Your task to perform on an android device: allow cookies in the chrome app Image 0: 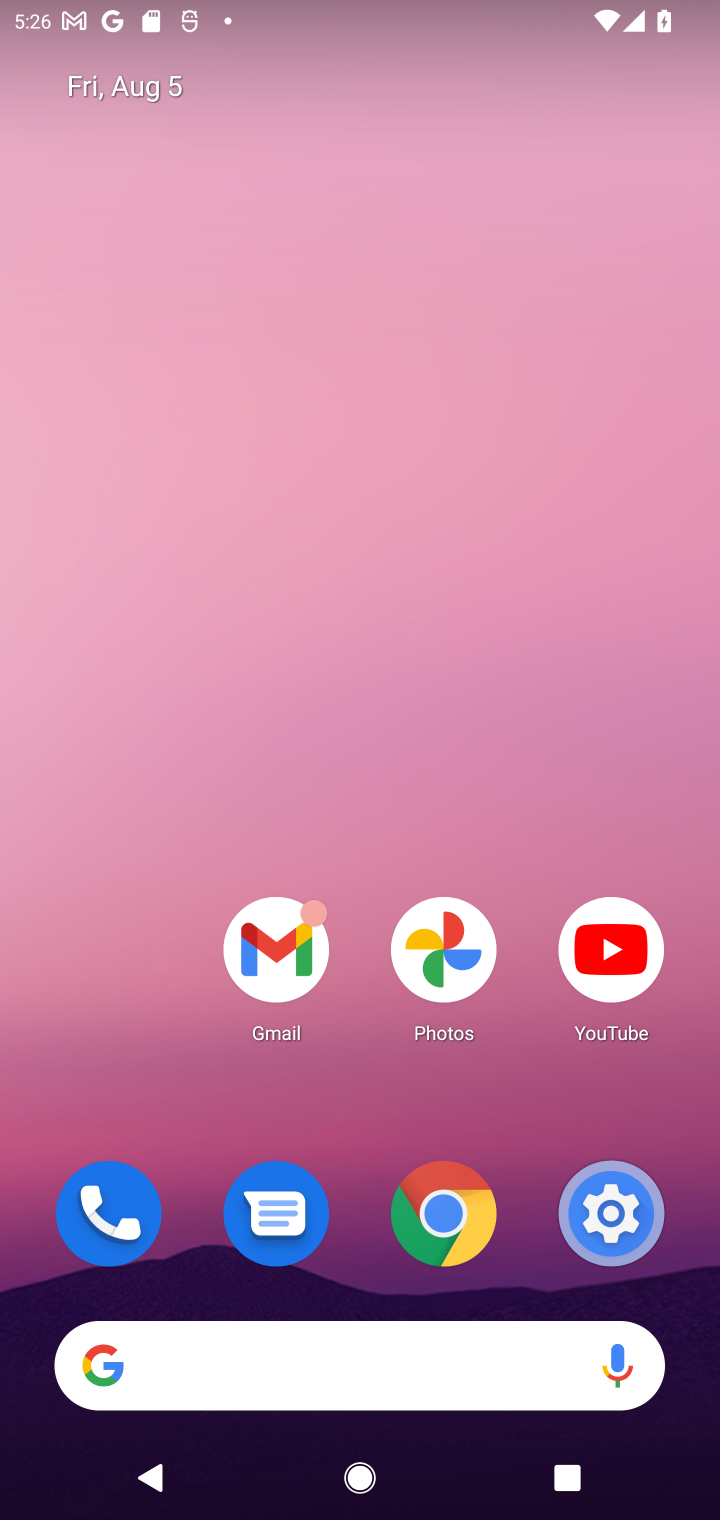
Step 0: click (487, 1258)
Your task to perform on an android device: allow cookies in the chrome app Image 1: 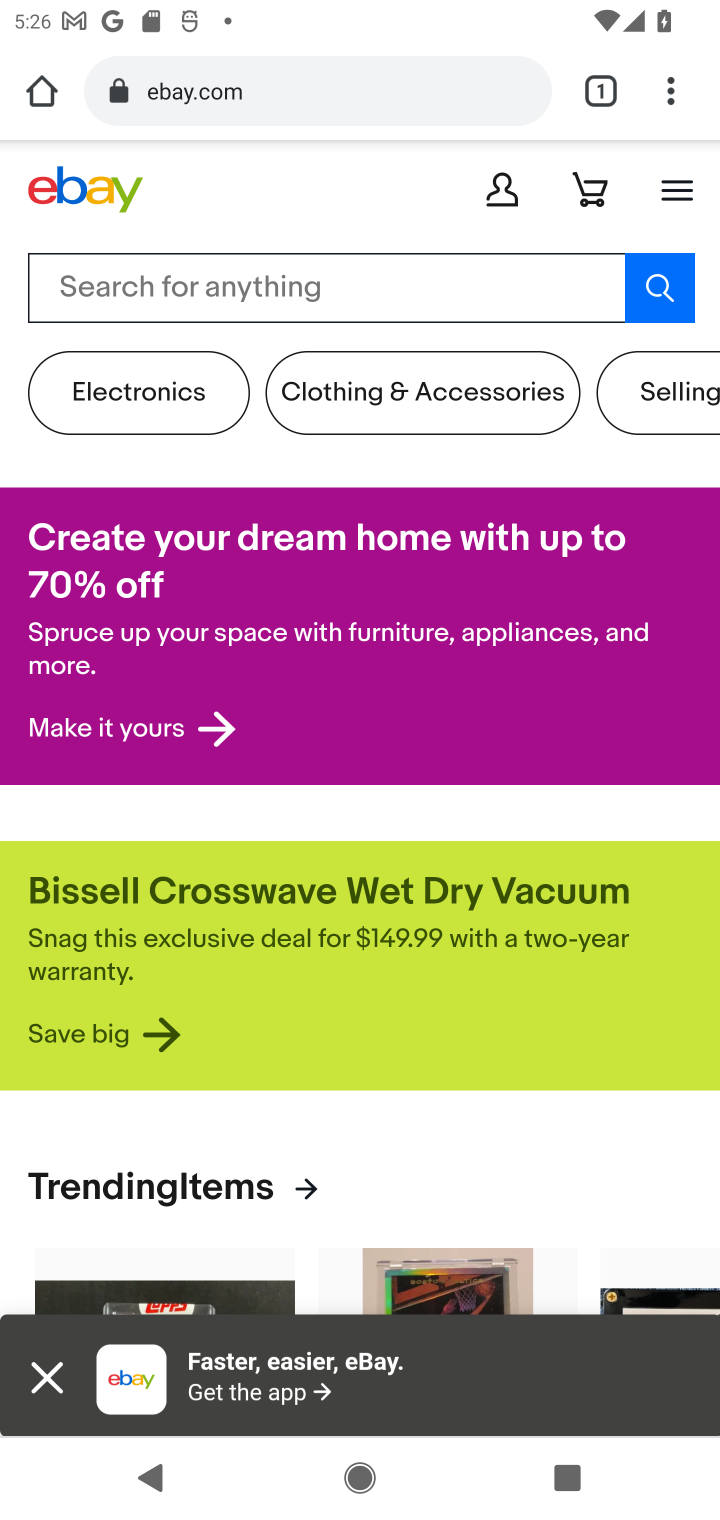
Step 1: click (665, 98)
Your task to perform on an android device: allow cookies in the chrome app Image 2: 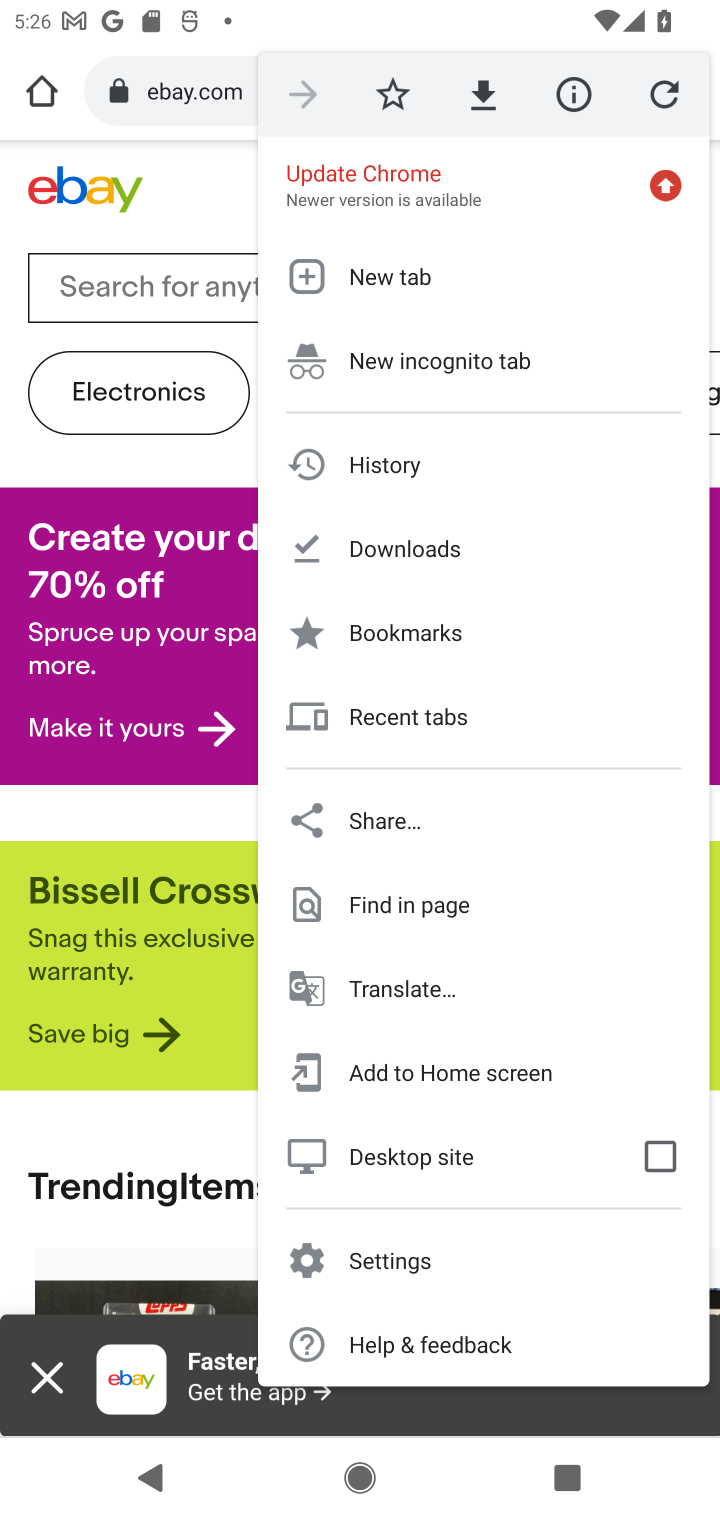
Step 2: click (338, 1225)
Your task to perform on an android device: allow cookies in the chrome app Image 3: 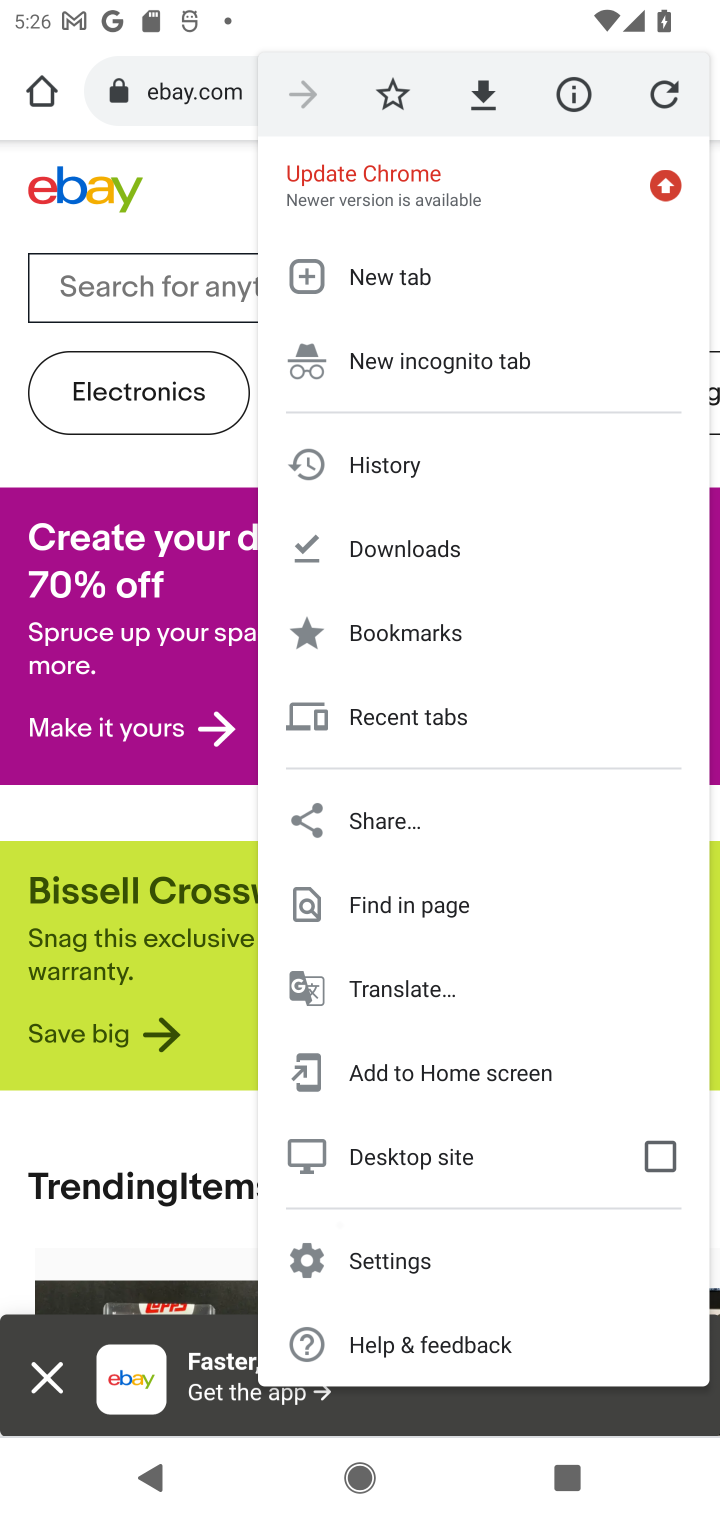
Step 3: click (326, 1230)
Your task to perform on an android device: allow cookies in the chrome app Image 4: 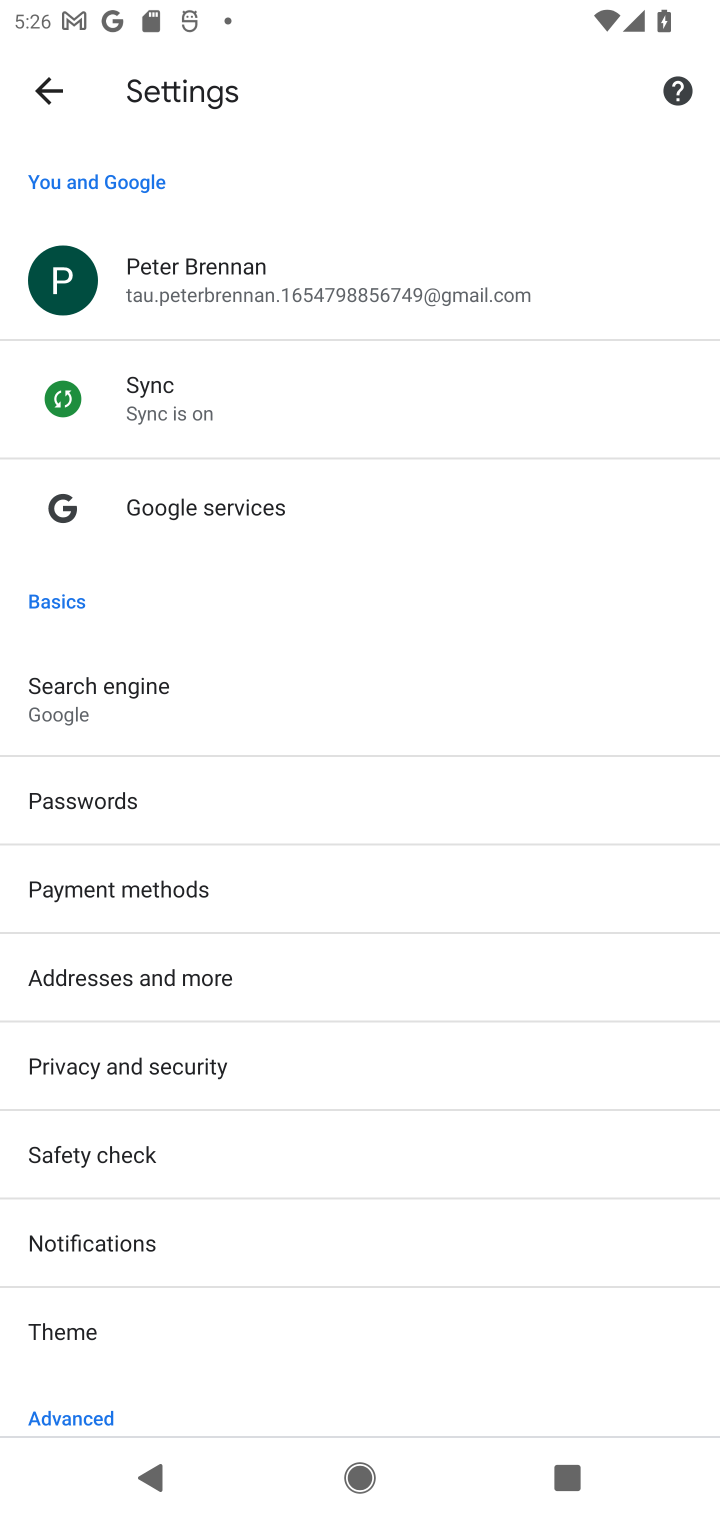
Step 4: task complete